Your task to perform on an android device: create a new album in the google photos Image 0: 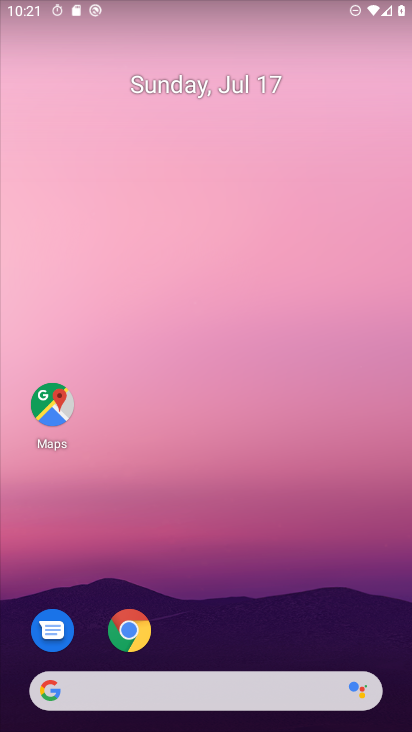
Step 0: drag from (182, 579) to (187, 201)
Your task to perform on an android device: create a new album in the google photos Image 1: 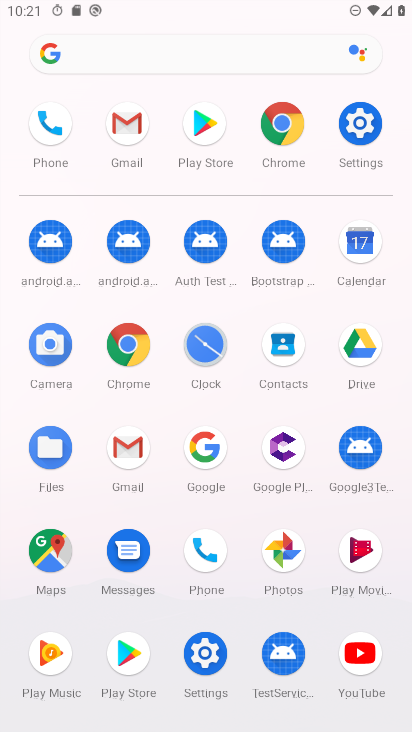
Step 1: click (269, 550)
Your task to perform on an android device: create a new album in the google photos Image 2: 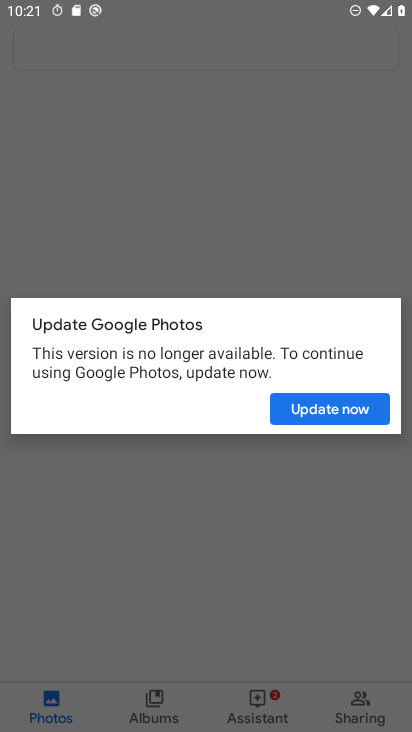
Step 2: click (335, 411)
Your task to perform on an android device: create a new album in the google photos Image 3: 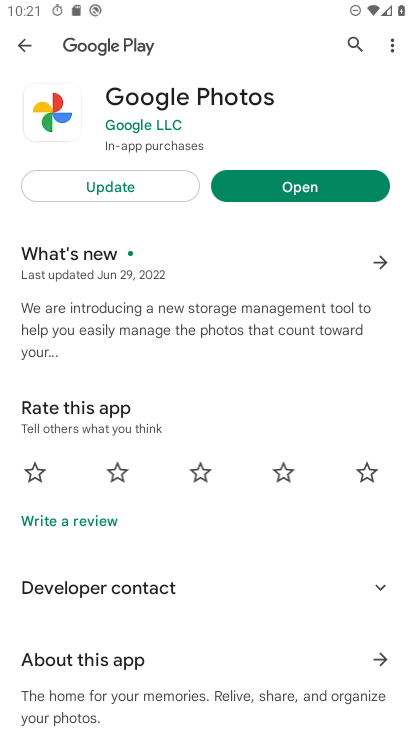
Step 3: press back button
Your task to perform on an android device: create a new album in the google photos Image 4: 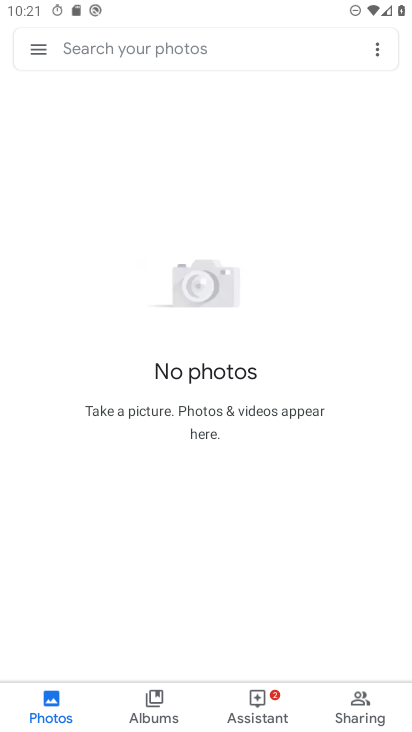
Step 4: click (157, 700)
Your task to perform on an android device: create a new album in the google photos Image 5: 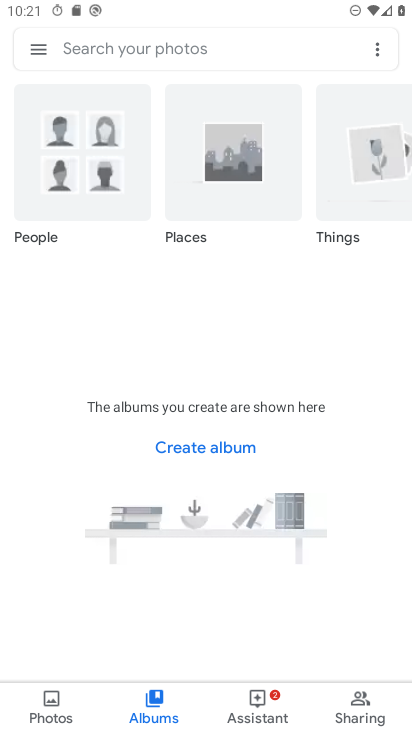
Step 5: task complete